Your task to perform on an android device: snooze an email in the gmail app Image 0: 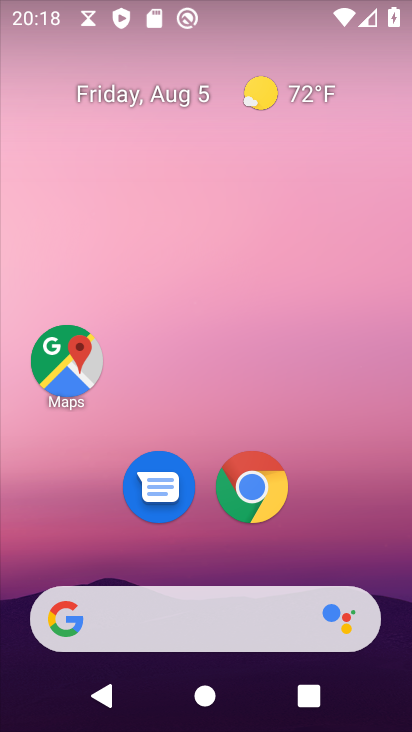
Step 0: drag from (233, 601) to (348, 5)
Your task to perform on an android device: snooze an email in the gmail app Image 1: 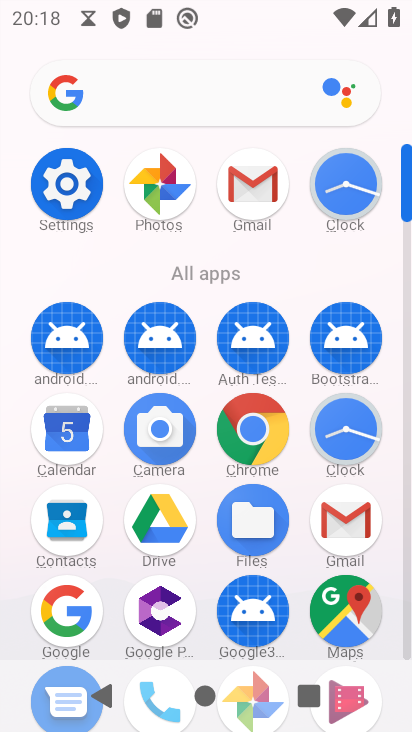
Step 1: click (246, 182)
Your task to perform on an android device: snooze an email in the gmail app Image 2: 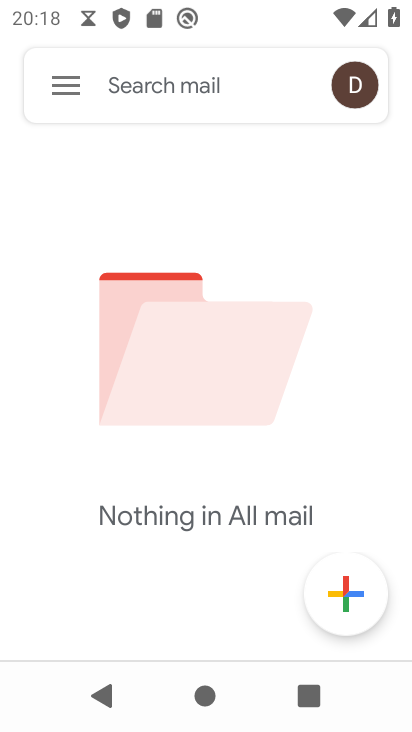
Step 2: task complete